Your task to perform on an android device: set an alarm Image 0: 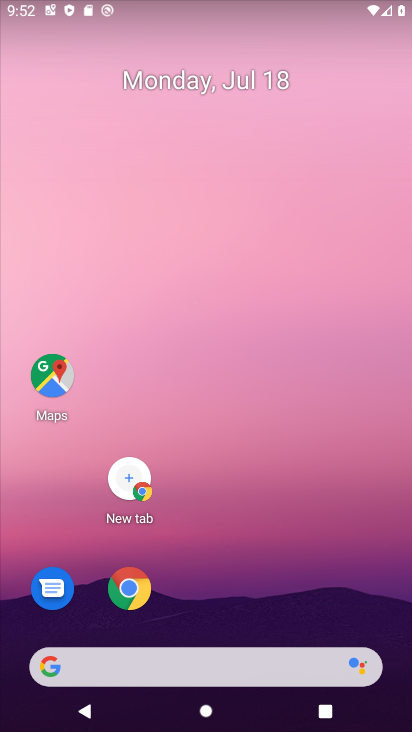
Step 0: drag from (194, 589) to (286, 29)
Your task to perform on an android device: set an alarm Image 1: 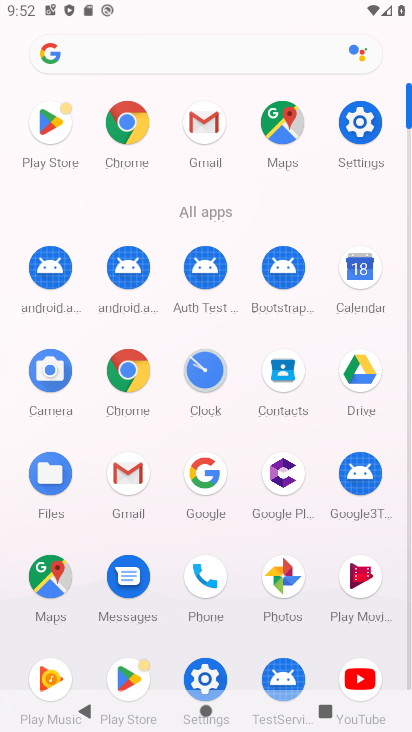
Step 1: click (204, 378)
Your task to perform on an android device: set an alarm Image 2: 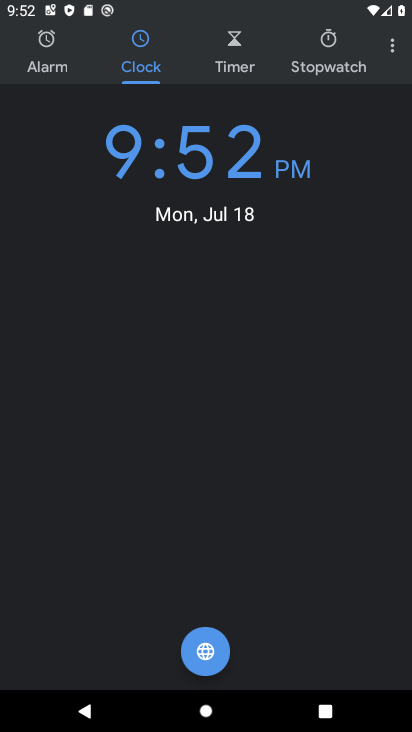
Step 2: click (57, 42)
Your task to perform on an android device: set an alarm Image 3: 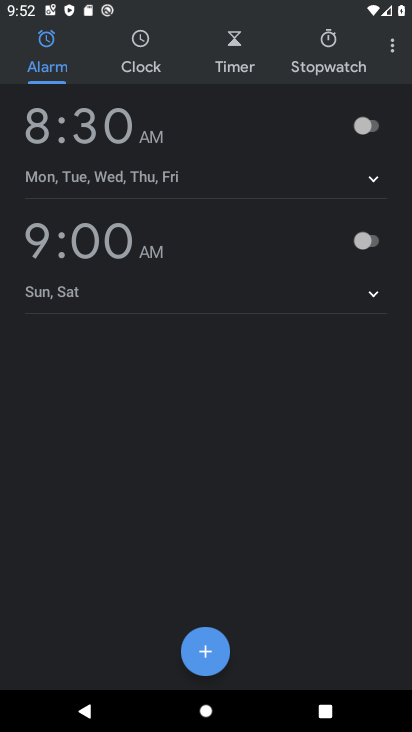
Step 3: click (379, 248)
Your task to perform on an android device: set an alarm Image 4: 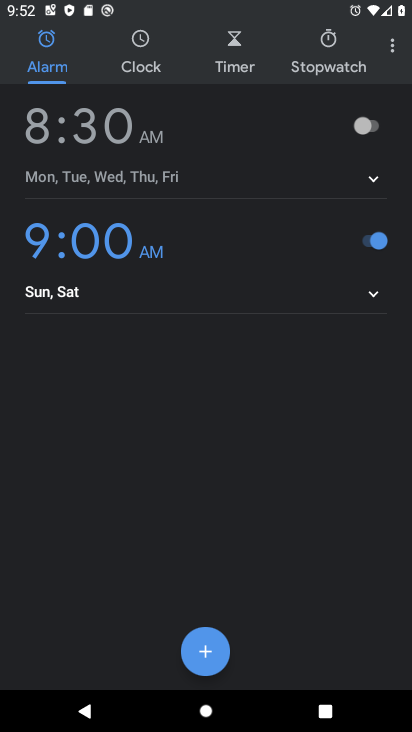
Step 4: task complete